Your task to perform on an android device: Do I have any events this weekend? Image 0: 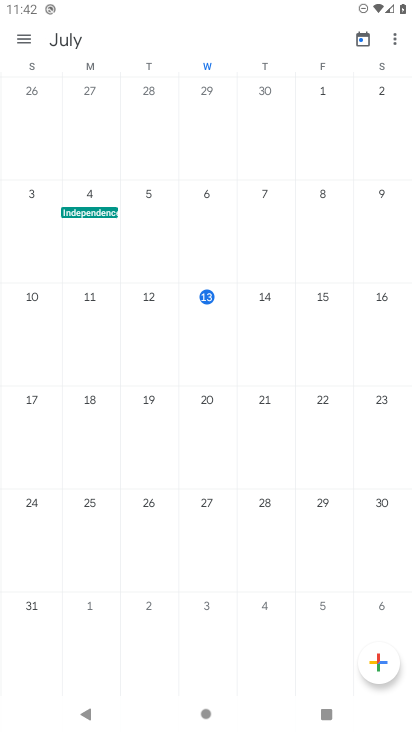
Step 0: click (22, 36)
Your task to perform on an android device: Do I have any events this weekend? Image 1: 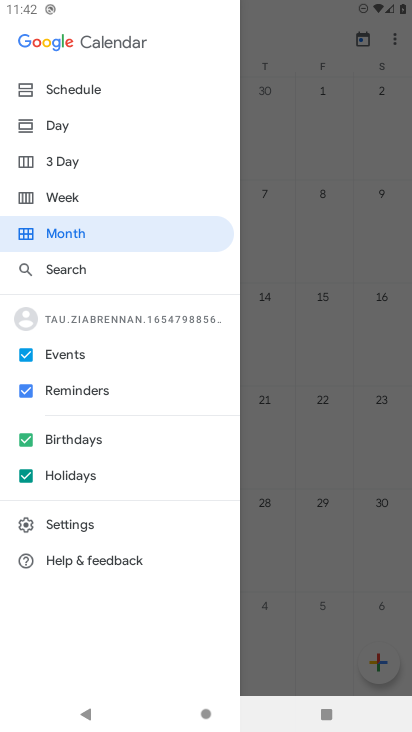
Step 1: click (64, 197)
Your task to perform on an android device: Do I have any events this weekend? Image 2: 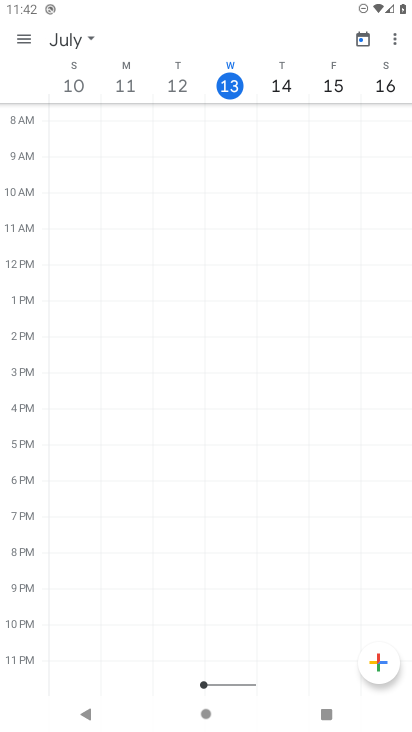
Step 2: click (331, 89)
Your task to perform on an android device: Do I have any events this weekend? Image 3: 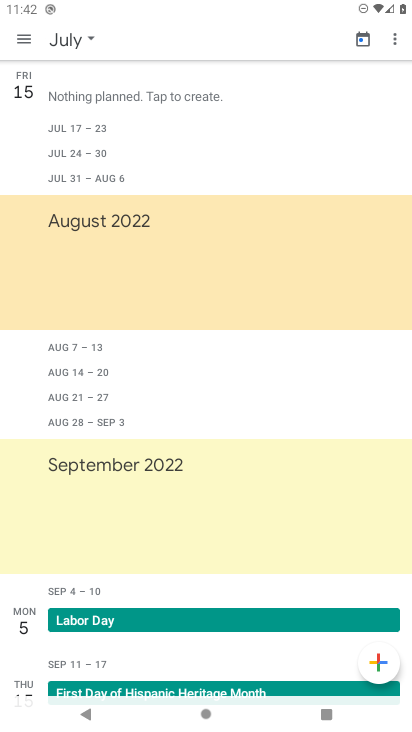
Step 3: task complete